Your task to perform on an android device: see tabs open on other devices in the chrome app Image 0: 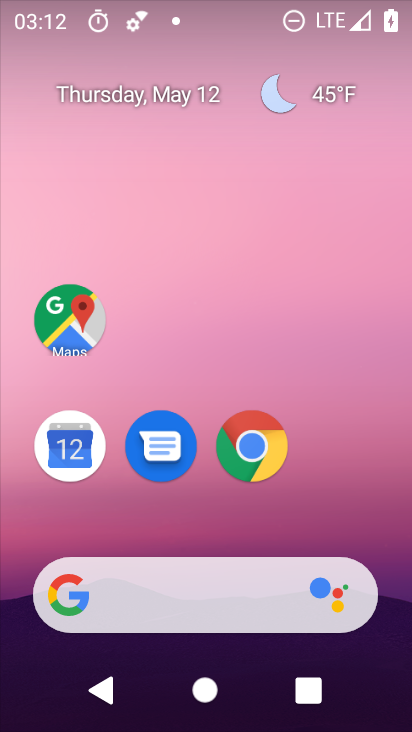
Step 0: click (278, 453)
Your task to perform on an android device: see tabs open on other devices in the chrome app Image 1: 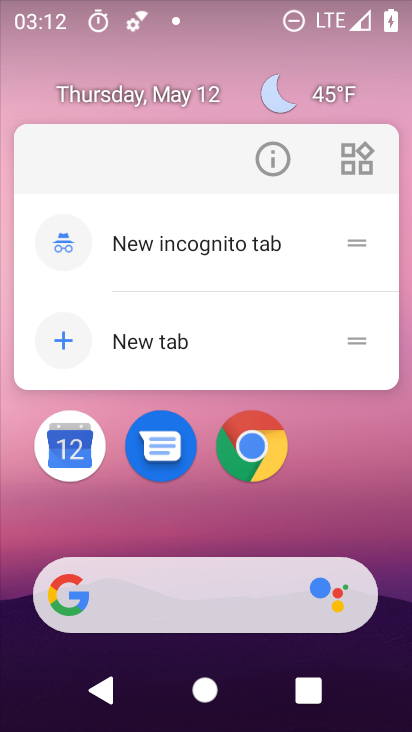
Step 1: click (257, 452)
Your task to perform on an android device: see tabs open on other devices in the chrome app Image 2: 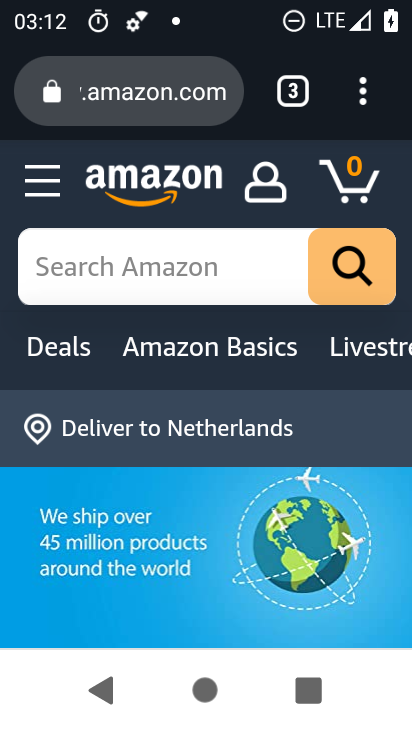
Step 2: drag from (364, 103) to (158, 368)
Your task to perform on an android device: see tabs open on other devices in the chrome app Image 3: 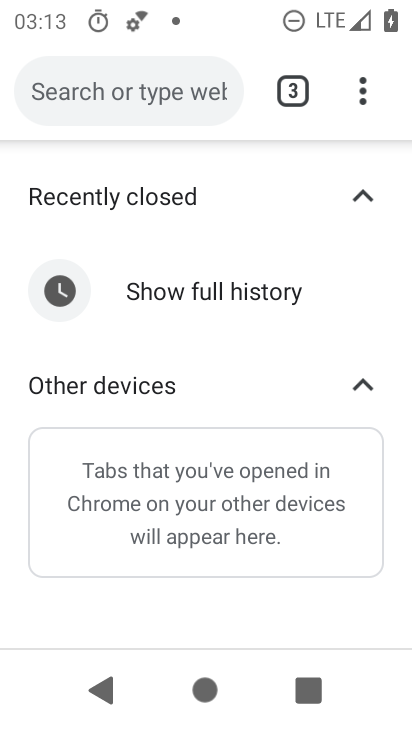
Step 3: click (353, 104)
Your task to perform on an android device: see tabs open on other devices in the chrome app Image 4: 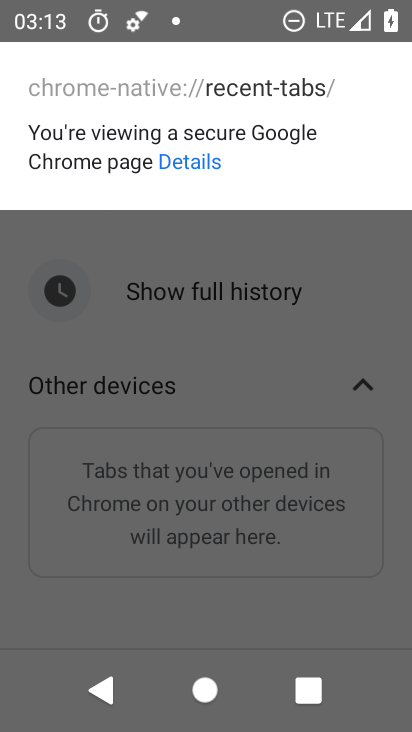
Step 4: task complete